Your task to perform on an android device: all mails in gmail Image 0: 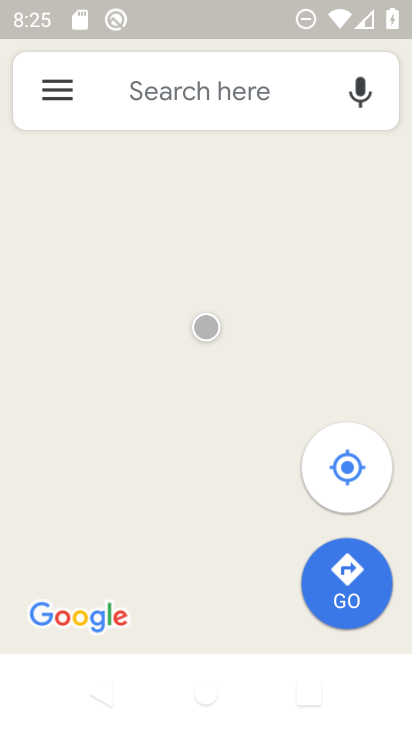
Step 0: press home button
Your task to perform on an android device: all mails in gmail Image 1: 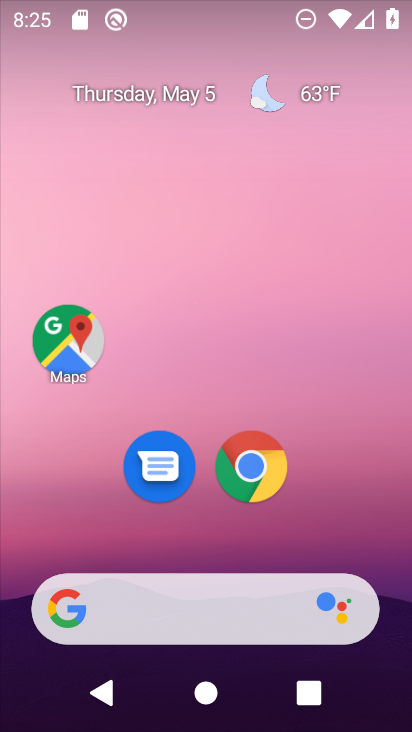
Step 1: drag from (173, 610) to (249, 145)
Your task to perform on an android device: all mails in gmail Image 2: 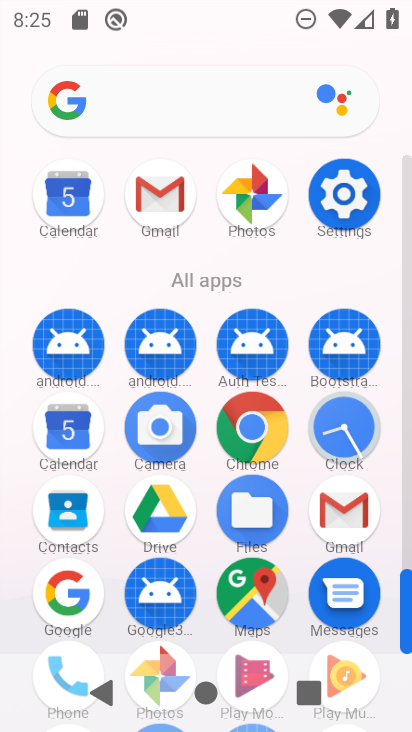
Step 2: click (163, 215)
Your task to perform on an android device: all mails in gmail Image 3: 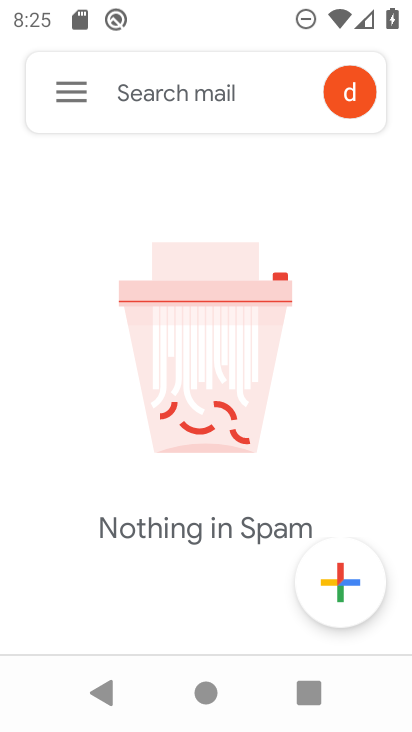
Step 3: click (59, 98)
Your task to perform on an android device: all mails in gmail Image 4: 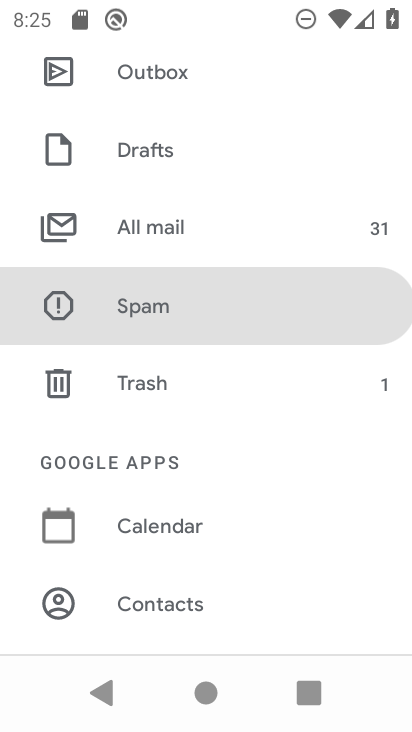
Step 4: click (178, 233)
Your task to perform on an android device: all mails in gmail Image 5: 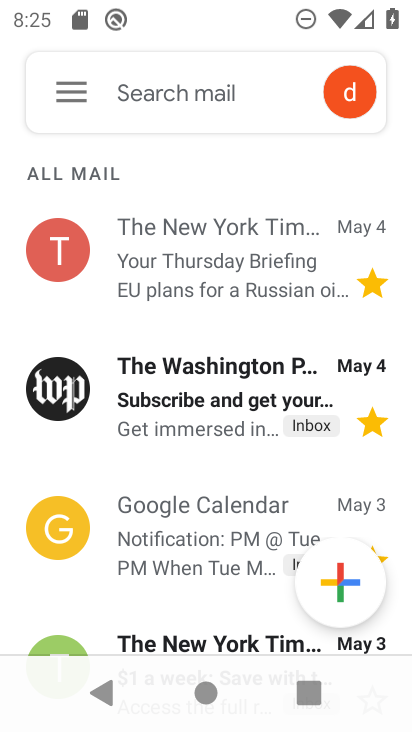
Step 5: task complete